Your task to perform on an android device: toggle improve location accuracy Image 0: 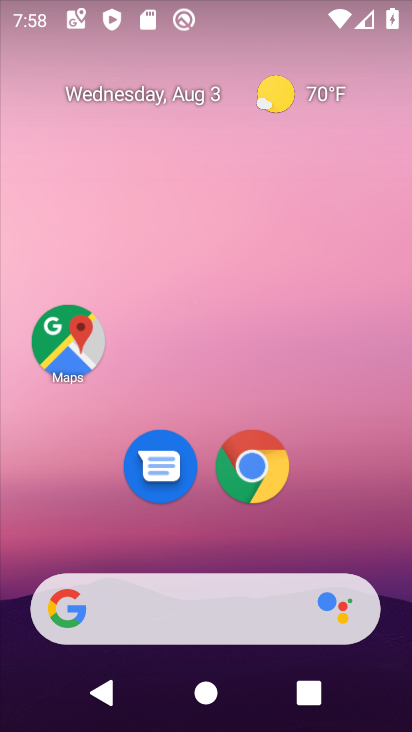
Step 0: drag from (360, 465) to (372, 142)
Your task to perform on an android device: toggle improve location accuracy Image 1: 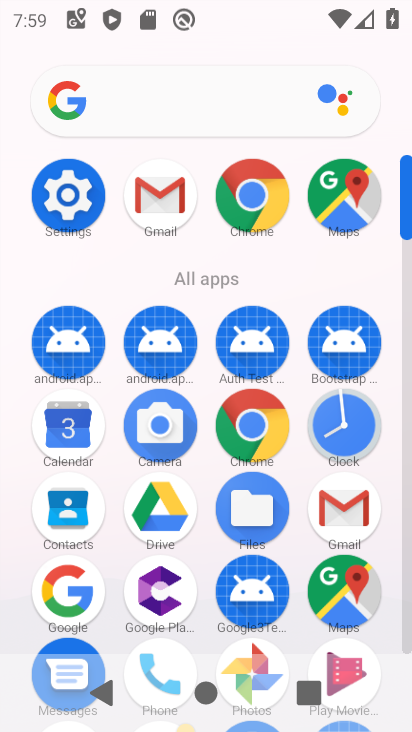
Step 1: click (63, 200)
Your task to perform on an android device: toggle improve location accuracy Image 2: 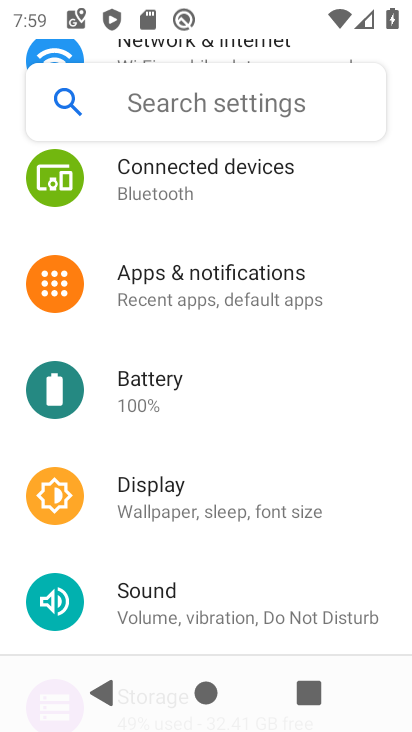
Step 2: drag from (275, 580) to (254, 108)
Your task to perform on an android device: toggle improve location accuracy Image 3: 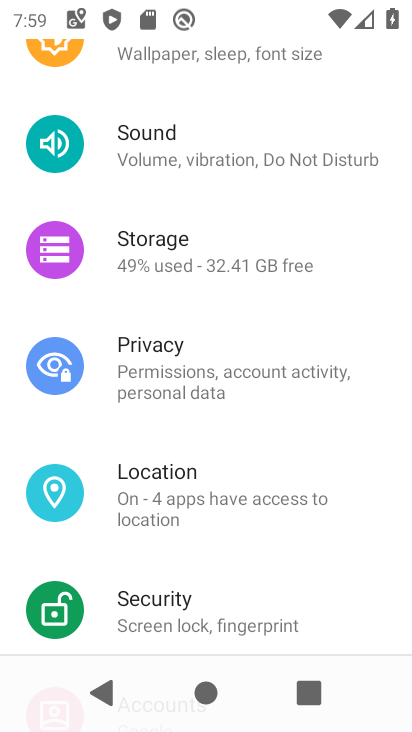
Step 3: drag from (298, 570) to (306, 151)
Your task to perform on an android device: toggle improve location accuracy Image 4: 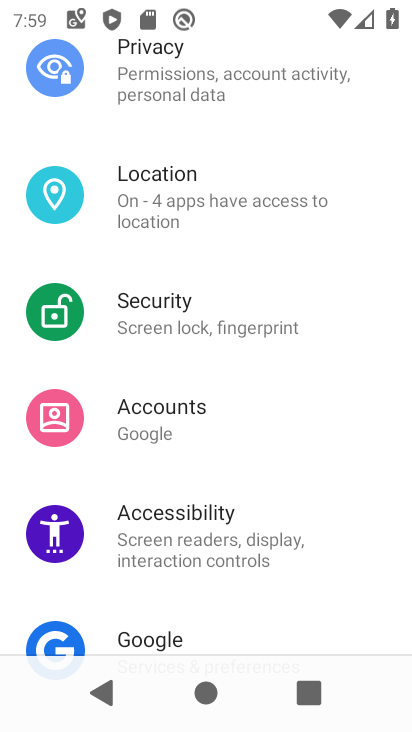
Step 4: drag from (295, 152) to (279, 560)
Your task to perform on an android device: toggle improve location accuracy Image 5: 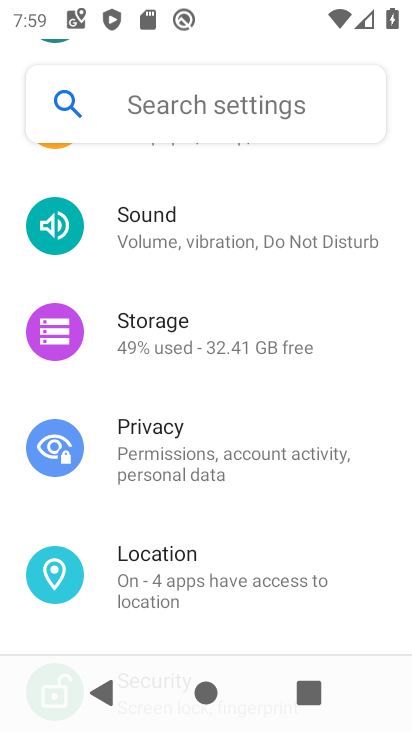
Step 5: click (206, 453)
Your task to perform on an android device: toggle improve location accuracy Image 6: 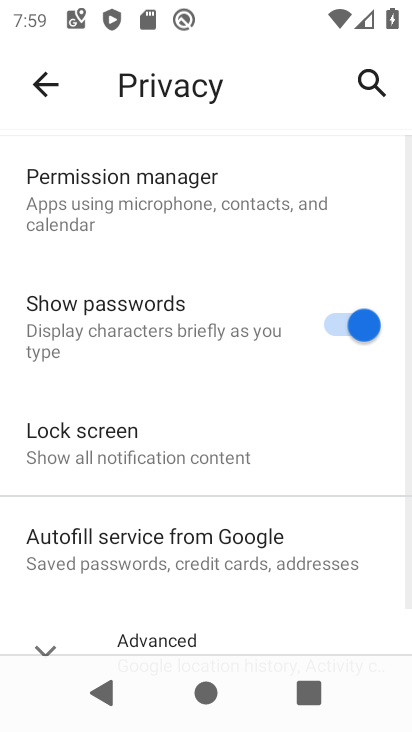
Step 6: drag from (299, 579) to (319, 229)
Your task to perform on an android device: toggle improve location accuracy Image 7: 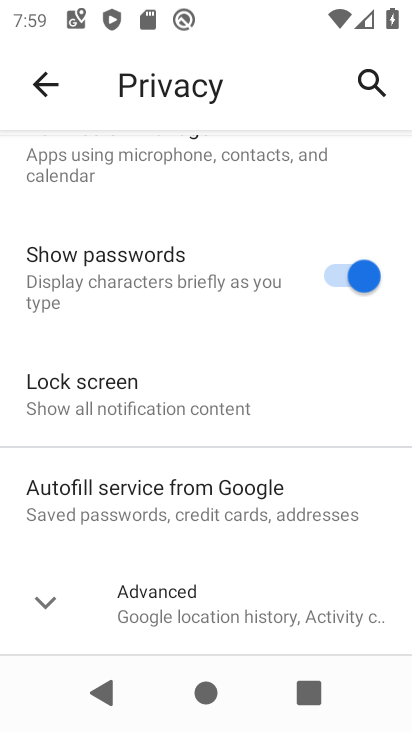
Step 7: click (59, 87)
Your task to perform on an android device: toggle improve location accuracy Image 8: 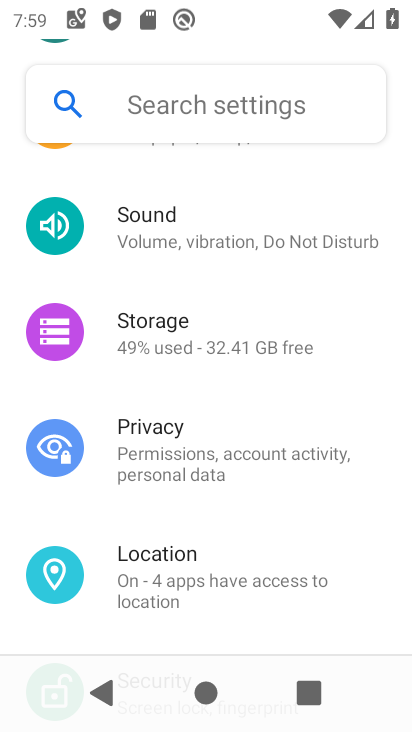
Step 8: click (225, 578)
Your task to perform on an android device: toggle improve location accuracy Image 9: 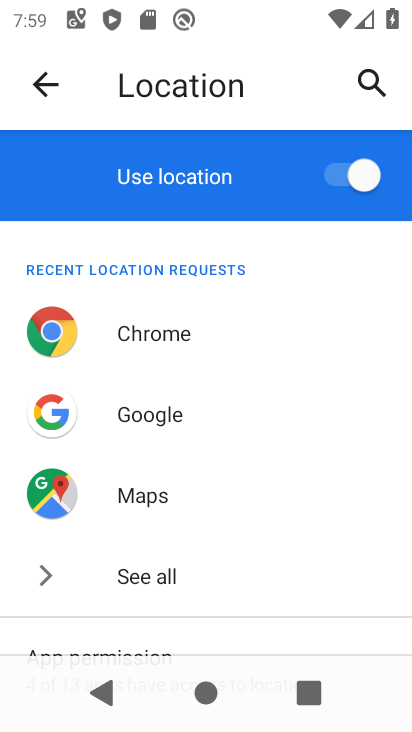
Step 9: drag from (311, 547) to (352, 16)
Your task to perform on an android device: toggle improve location accuracy Image 10: 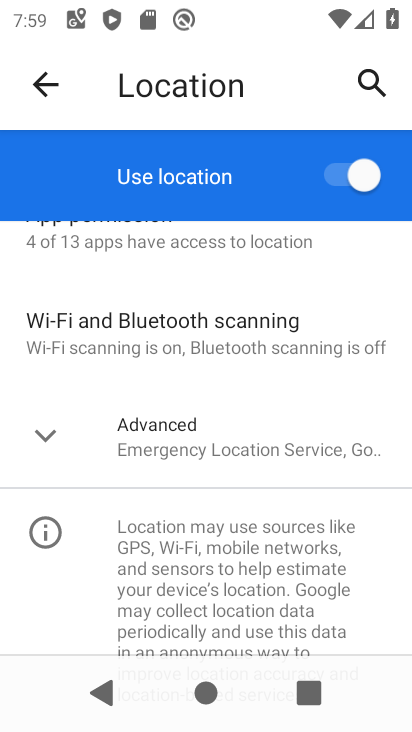
Step 10: click (177, 464)
Your task to perform on an android device: toggle improve location accuracy Image 11: 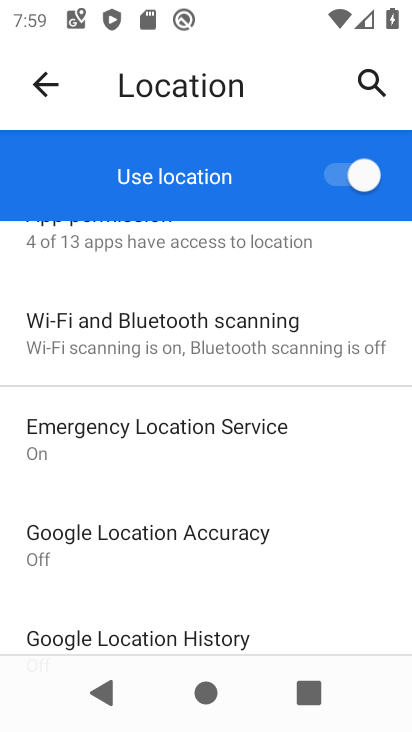
Step 11: drag from (338, 566) to (336, 258)
Your task to perform on an android device: toggle improve location accuracy Image 12: 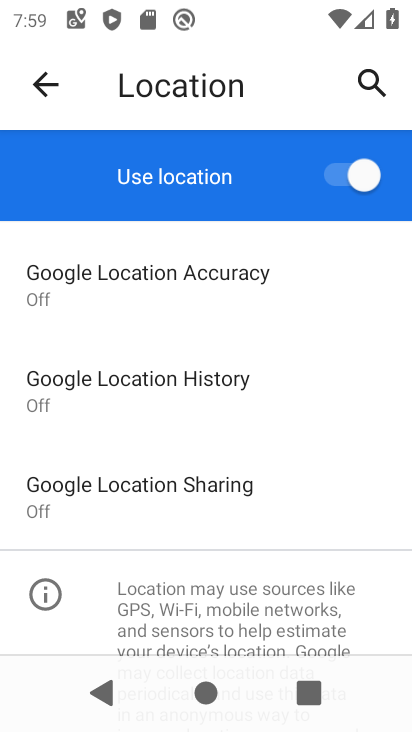
Step 12: click (226, 284)
Your task to perform on an android device: toggle improve location accuracy Image 13: 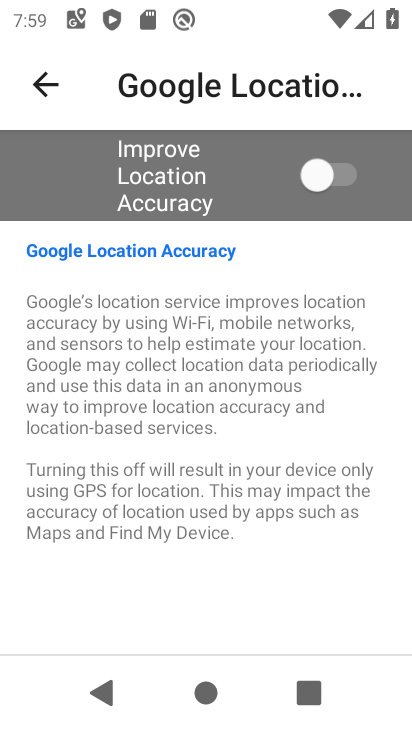
Step 13: click (358, 185)
Your task to perform on an android device: toggle improve location accuracy Image 14: 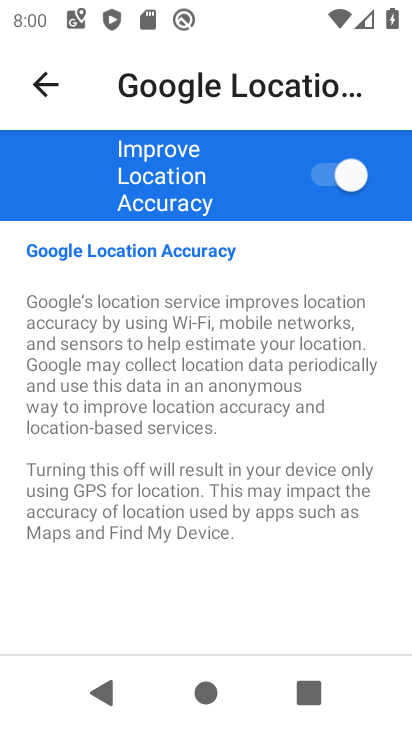
Step 14: task complete